Your task to perform on an android device: delete browsing data in the chrome app Image 0: 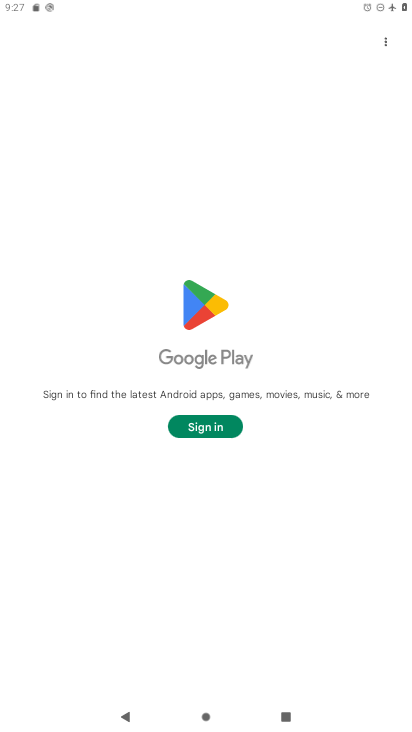
Step 0: press home button
Your task to perform on an android device: delete browsing data in the chrome app Image 1: 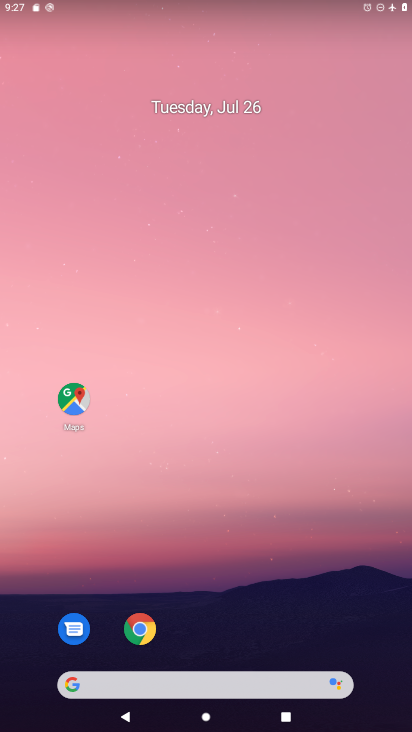
Step 1: drag from (198, 664) to (232, 112)
Your task to perform on an android device: delete browsing data in the chrome app Image 2: 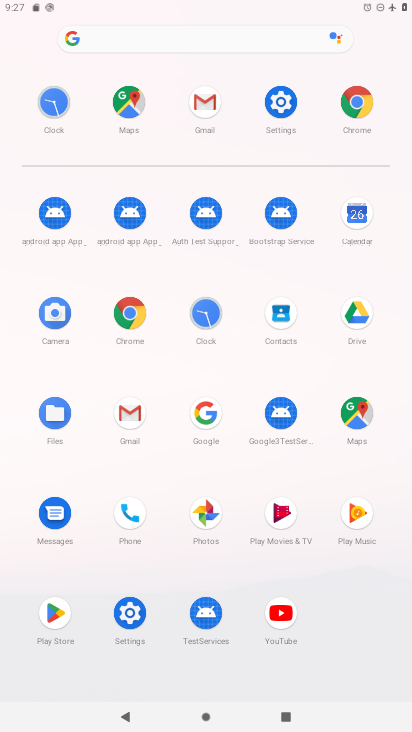
Step 2: click (133, 320)
Your task to perform on an android device: delete browsing data in the chrome app Image 3: 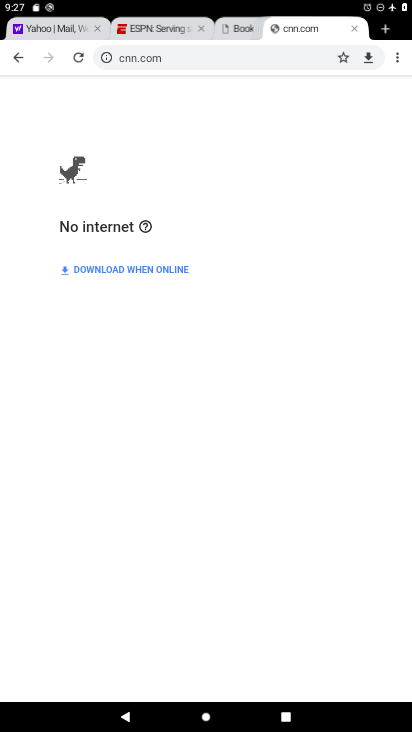
Step 3: drag from (396, 54) to (264, 180)
Your task to perform on an android device: delete browsing data in the chrome app Image 4: 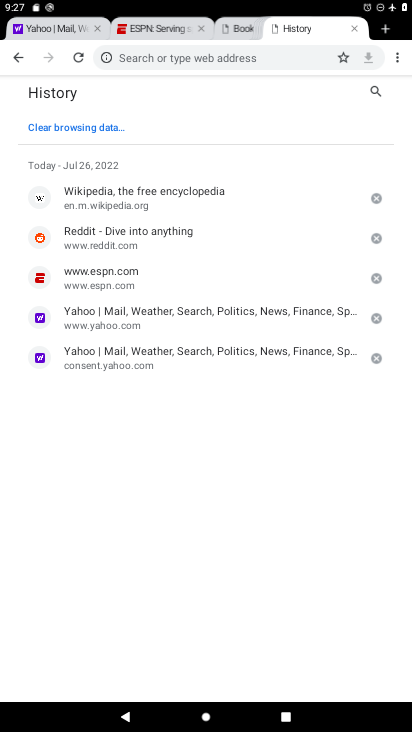
Step 4: click (78, 129)
Your task to perform on an android device: delete browsing data in the chrome app Image 5: 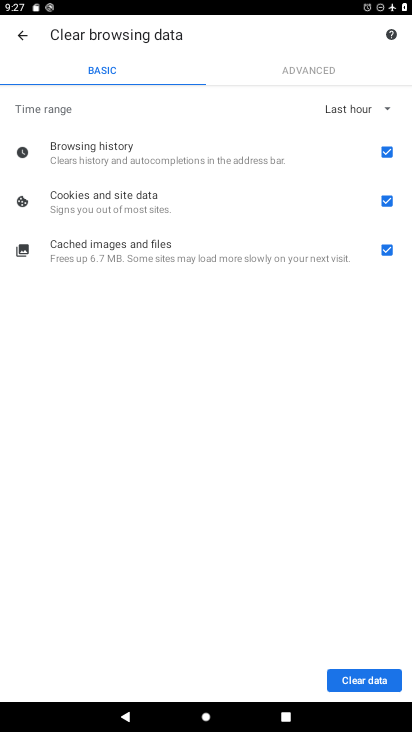
Step 5: click (367, 690)
Your task to perform on an android device: delete browsing data in the chrome app Image 6: 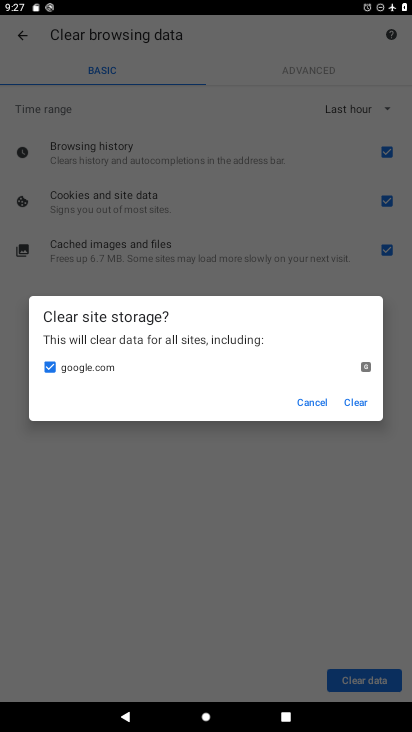
Step 6: click (359, 406)
Your task to perform on an android device: delete browsing data in the chrome app Image 7: 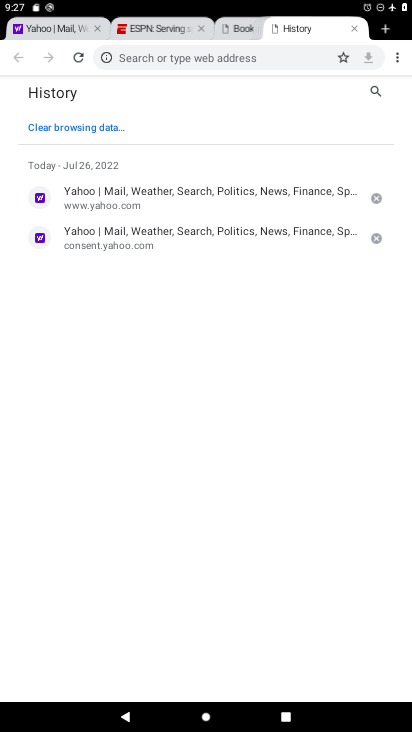
Step 7: task complete